Your task to perform on an android device: clear all cookies in the chrome app Image 0: 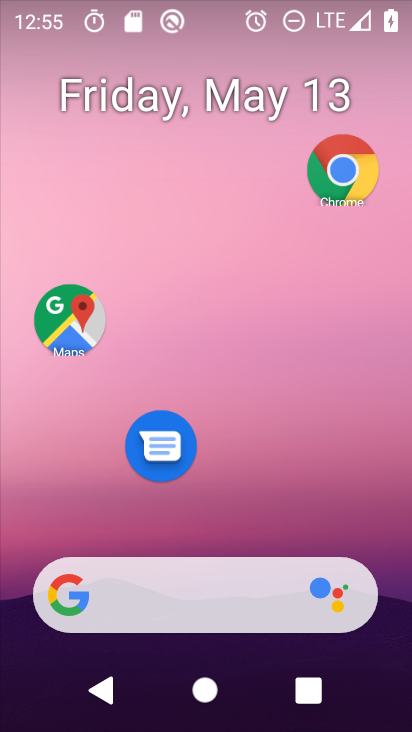
Step 0: drag from (324, 584) to (303, 68)
Your task to perform on an android device: clear all cookies in the chrome app Image 1: 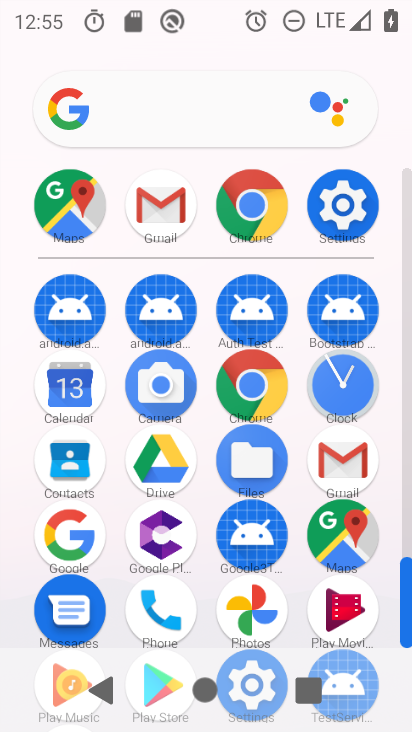
Step 1: click (244, 372)
Your task to perform on an android device: clear all cookies in the chrome app Image 2: 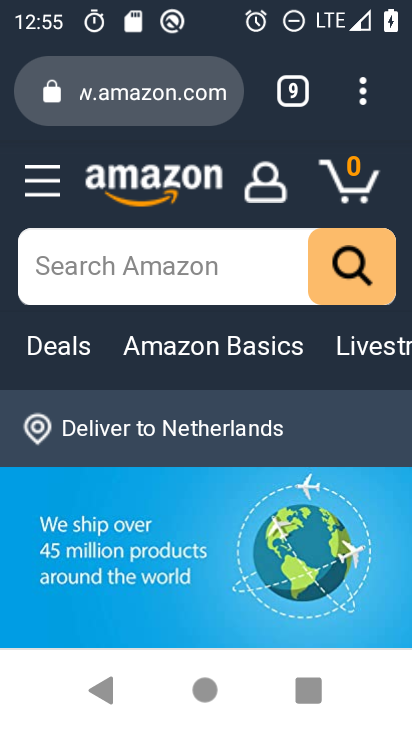
Step 2: drag from (371, 83) to (131, 468)
Your task to perform on an android device: clear all cookies in the chrome app Image 3: 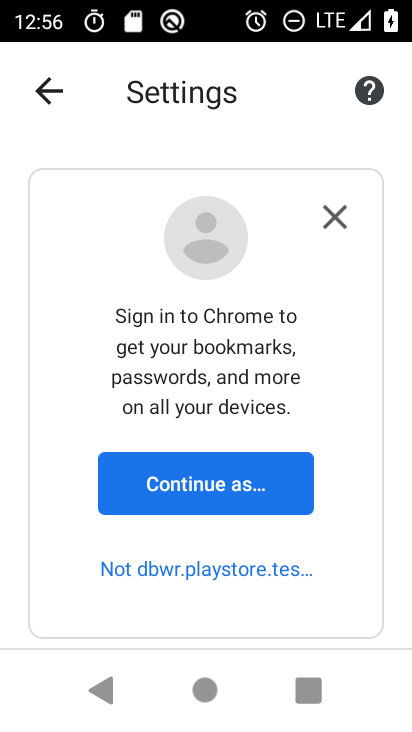
Step 3: drag from (324, 591) to (347, 19)
Your task to perform on an android device: clear all cookies in the chrome app Image 4: 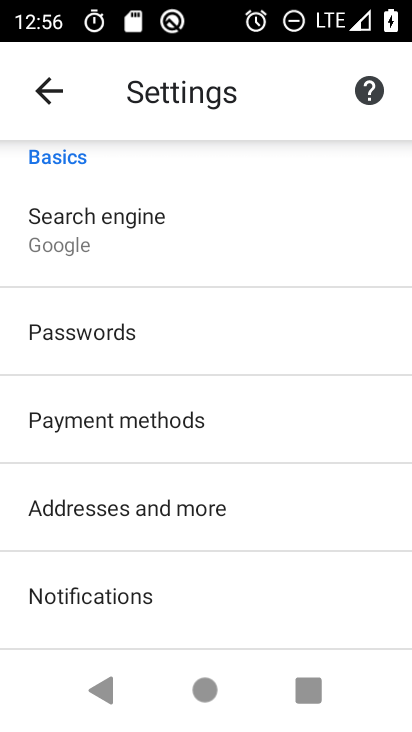
Step 4: drag from (317, 613) to (291, 122)
Your task to perform on an android device: clear all cookies in the chrome app Image 5: 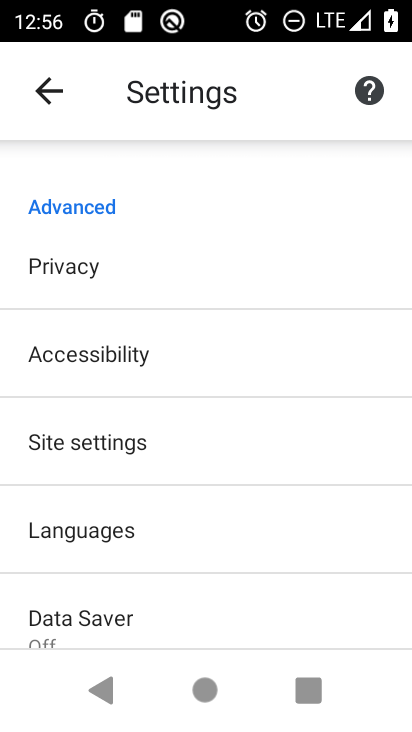
Step 5: drag from (177, 635) to (178, 449)
Your task to perform on an android device: clear all cookies in the chrome app Image 6: 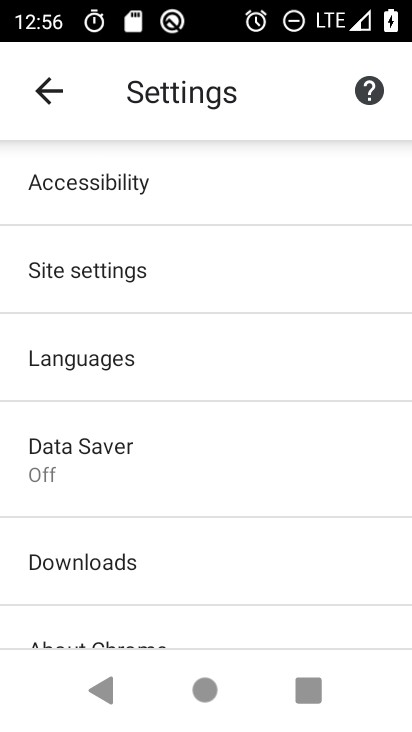
Step 6: click (202, 259)
Your task to perform on an android device: clear all cookies in the chrome app Image 7: 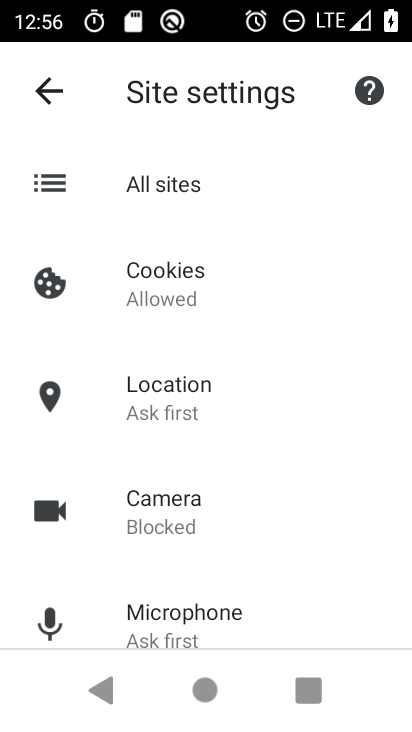
Step 7: press back button
Your task to perform on an android device: clear all cookies in the chrome app Image 8: 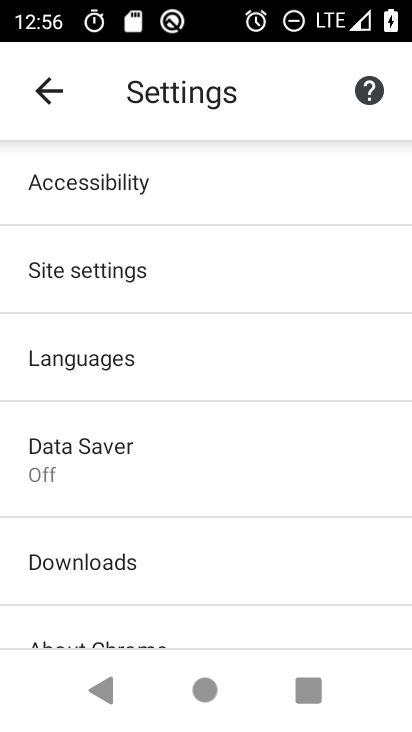
Step 8: drag from (176, 357) to (212, 626)
Your task to perform on an android device: clear all cookies in the chrome app Image 9: 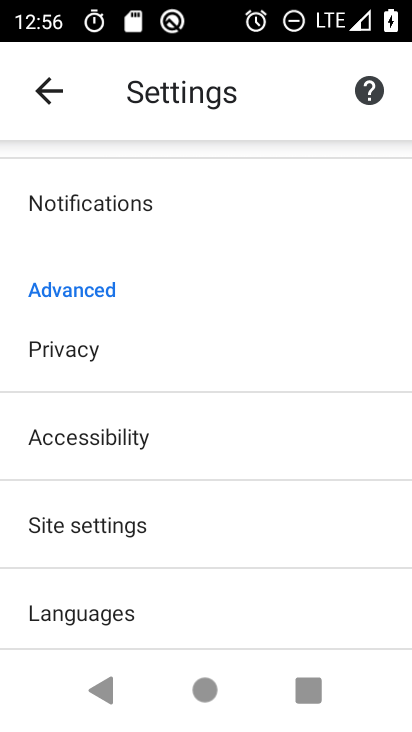
Step 9: click (138, 359)
Your task to perform on an android device: clear all cookies in the chrome app Image 10: 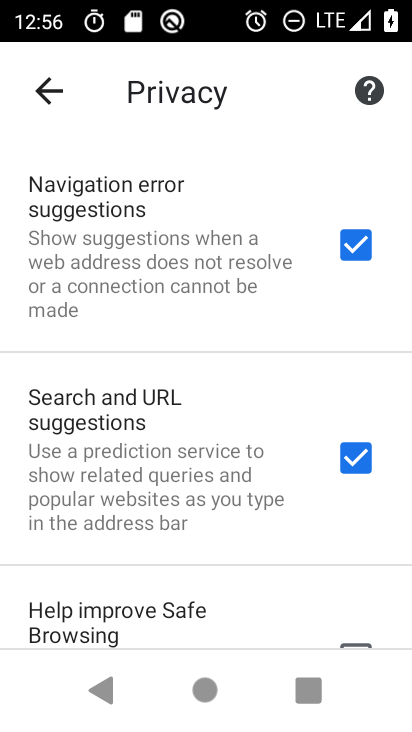
Step 10: drag from (246, 616) to (265, 54)
Your task to perform on an android device: clear all cookies in the chrome app Image 11: 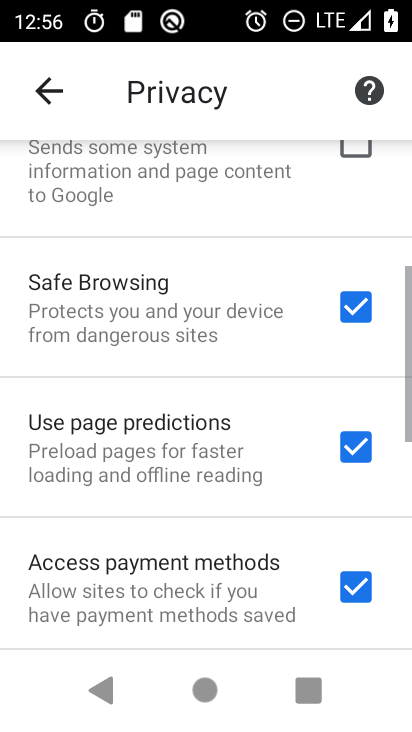
Step 11: drag from (236, 585) to (258, 104)
Your task to perform on an android device: clear all cookies in the chrome app Image 12: 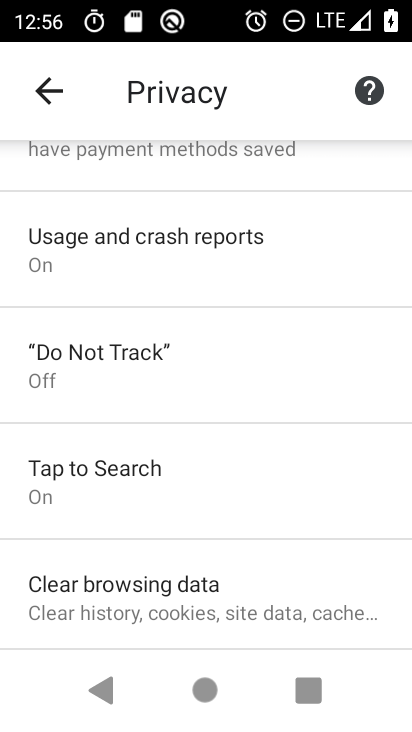
Step 12: click (262, 598)
Your task to perform on an android device: clear all cookies in the chrome app Image 13: 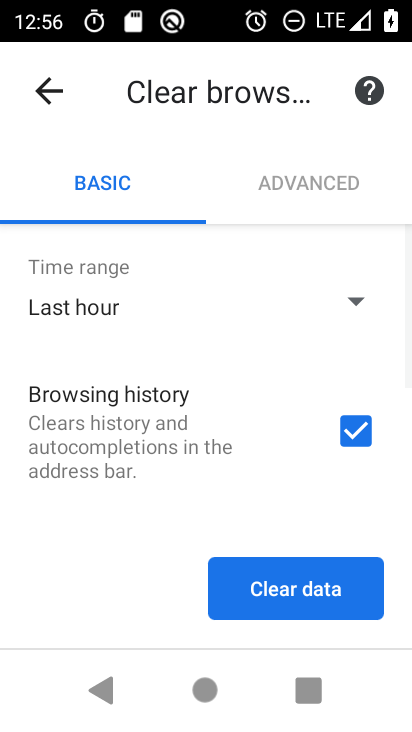
Step 13: click (331, 576)
Your task to perform on an android device: clear all cookies in the chrome app Image 14: 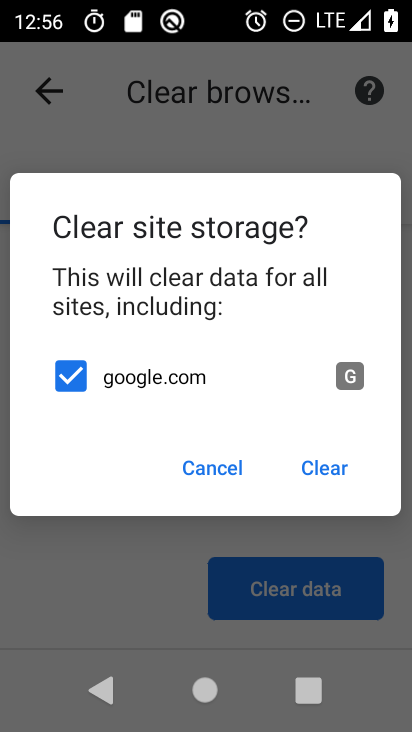
Step 14: click (335, 459)
Your task to perform on an android device: clear all cookies in the chrome app Image 15: 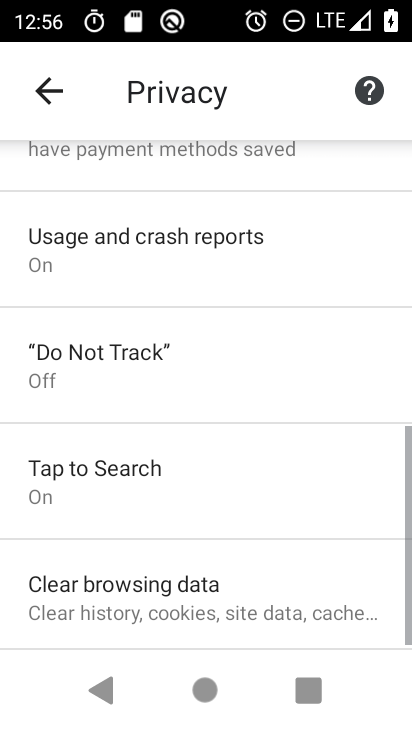
Step 15: task complete